Your task to perform on an android device: change your default location settings in chrome Image 0: 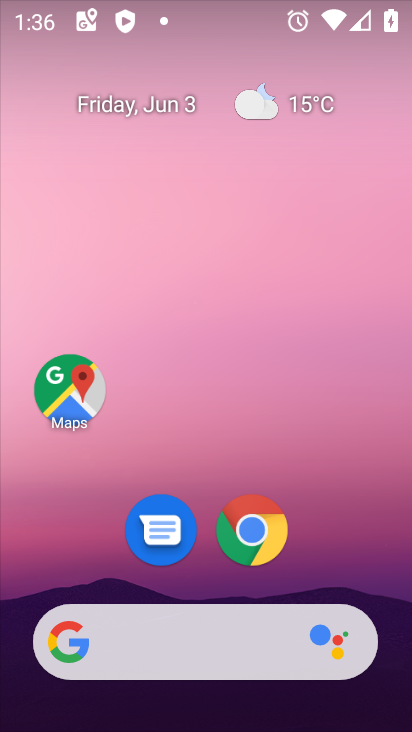
Step 0: click (271, 540)
Your task to perform on an android device: change your default location settings in chrome Image 1: 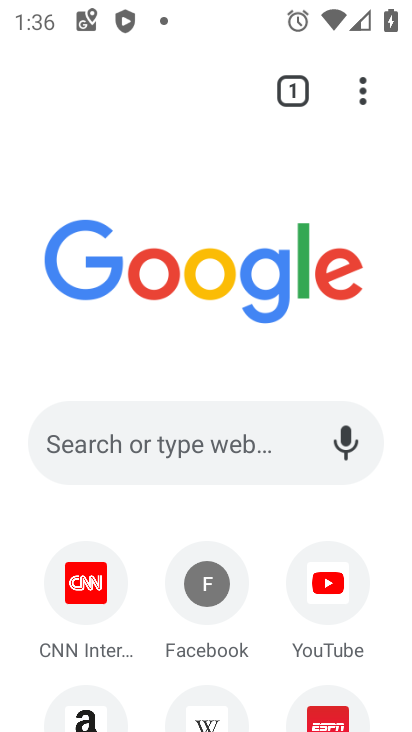
Step 1: drag from (361, 90) to (276, 564)
Your task to perform on an android device: change your default location settings in chrome Image 2: 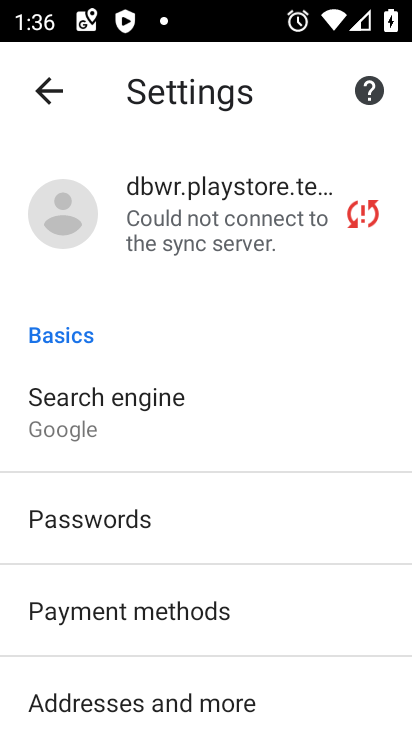
Step 2: drag from (306, 358) to (249, 135)
Your task to perform on an android device: change your default location settings in chrome Image 3: 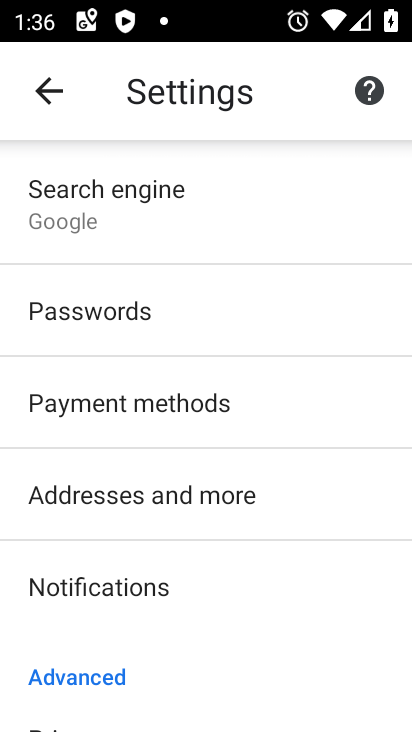
Step 3: drag from (258, 672) to (231, 303)
Your task to perform on an android device: change your default location settings in chrome Image 4: 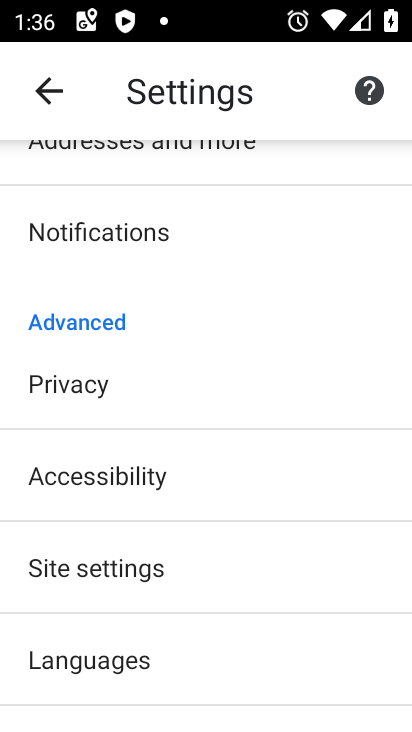
Step 4: click (169, 572)
Your task to perform on an android device: change your default location settings in chrome Image 5: 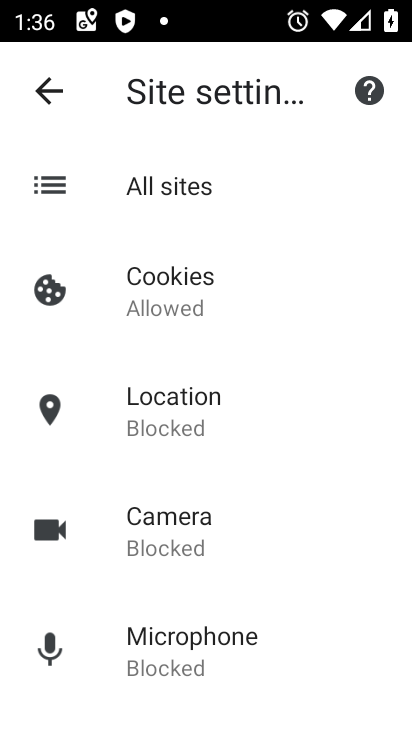
Step 5: click (183, 411)
Your task to perform on an android device: change your default location settings in chrome Image 6: 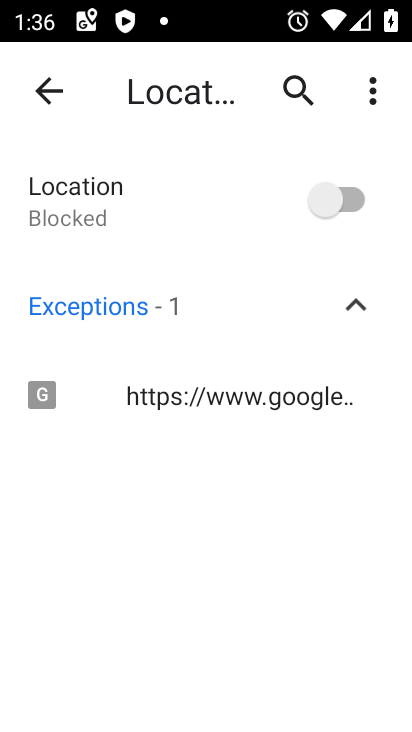
Step 6: click (344, 190)
Your task to perform on an android device: change your default location settings in chrome Image 7: 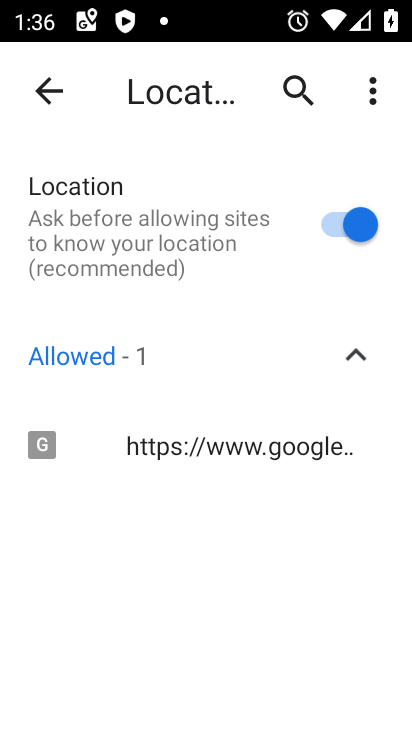
Step 7: task complete